Your task to perform on an android device: turn on showing notifications on the lock screen Image 0: 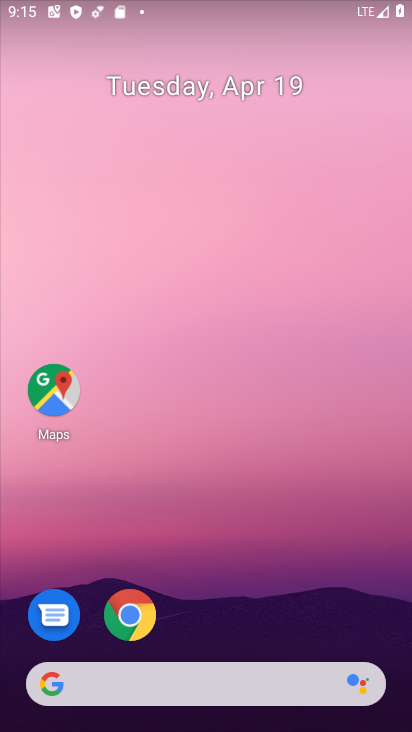
Step 0: drag from (243, 612) to (304, 57)
Your task to perform on an android device: turn on showing notifications on the lock screen Image 1: 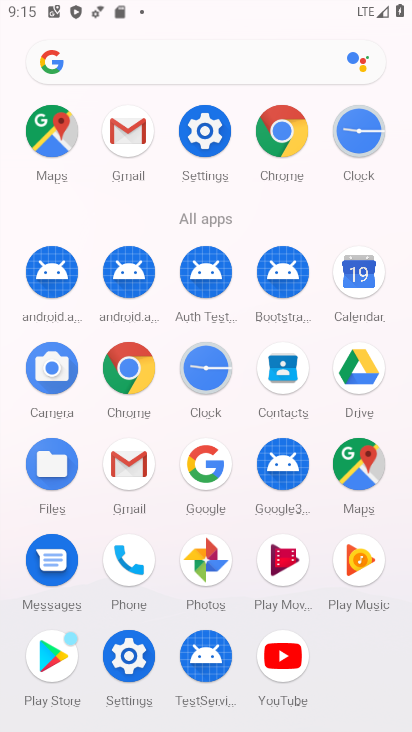
Step 1: click (127, 656)
Your task to perform on an android device: turn on showing notifications on the lock screen Image 2: 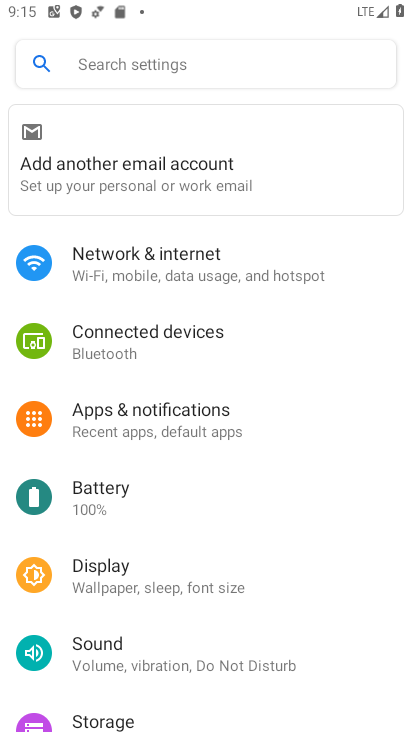
Step 2: click (186, 425)
Your task to perform on an android device: turn on showing notifications on the lock screen Image 3: 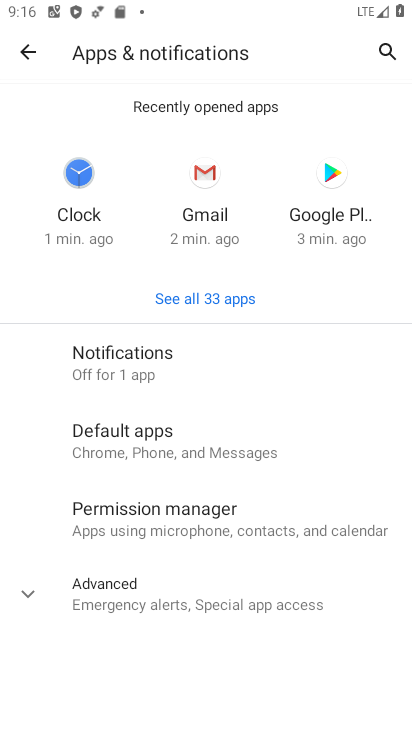
Step 3: click (145, 384)
Your task to perform on an android device: turn on showing notifications on the lock screen Image 4: 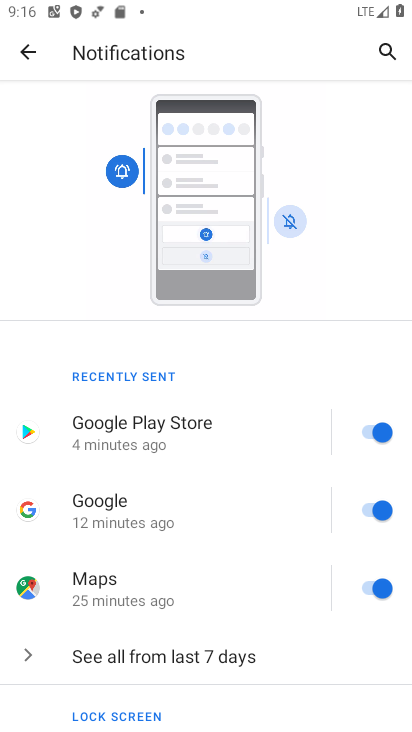
Step 4: drag from (141, 623) to (321, 80)
Your task to perform on an android device: turn on showing notifications on the lock screen Image 5: 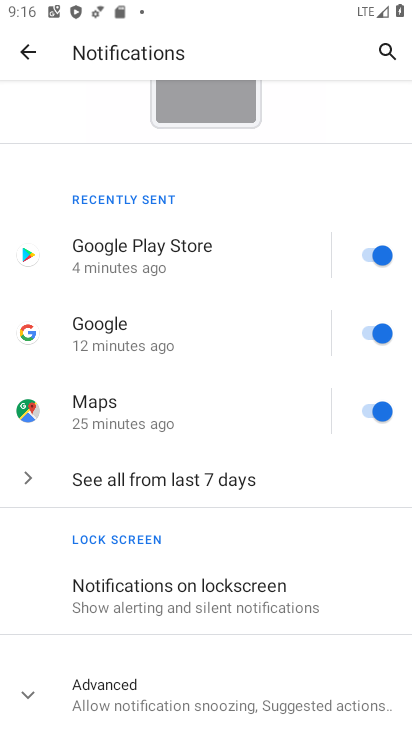
Step 5: click (168, 601)
Your task to perform on an android device: turn on showing notifications on the lock screen Image 6: 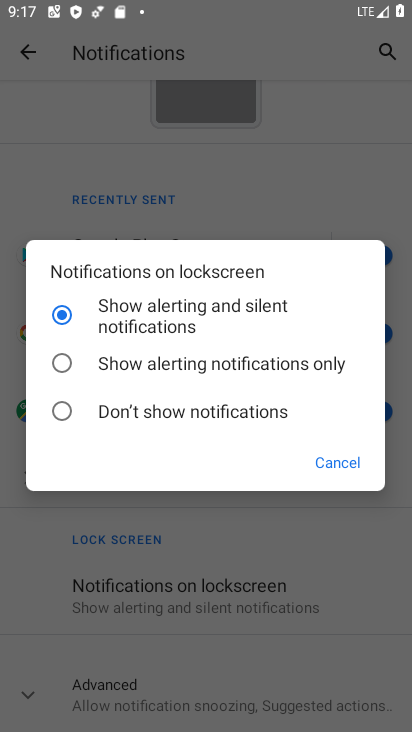
Step 6: task complete